Your task to perform on an android device: Search for seafood restaurants on Google Maps Image 0: 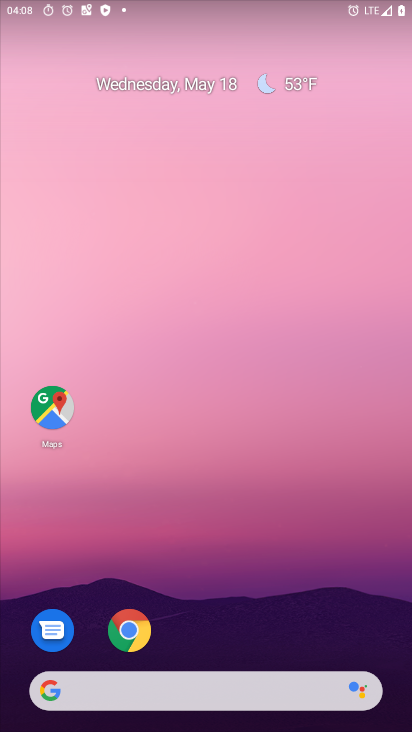
Step 0: drag from (226, 710) to (226, 133)
Your task to perform on an android device: Search for seafood restaurants on Google Maps Image 1: 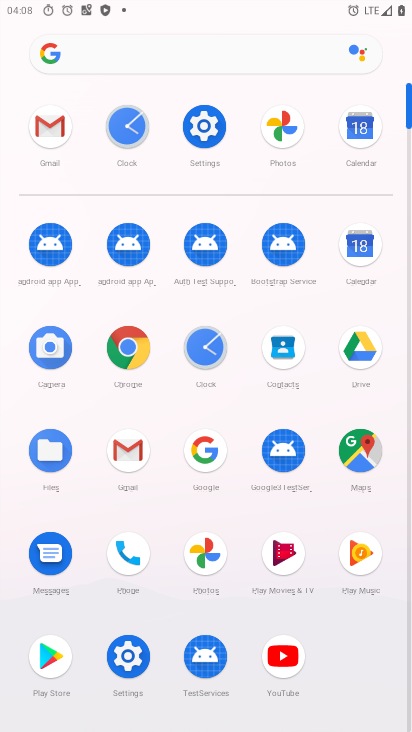
Step 1: click (364, 454)
Your task to perform on an android device: Search for seafood restaurants on Google Maps Image 2: 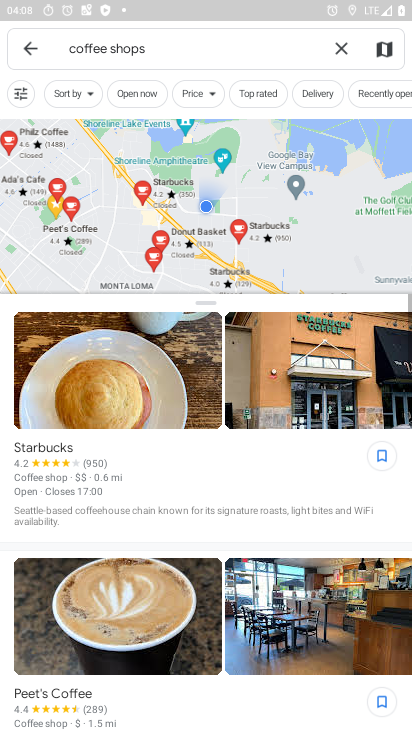
Step 2: click (154, 51)
Your task to perform on an android device: Search for seafood restaurants on Google Maps Image 3: 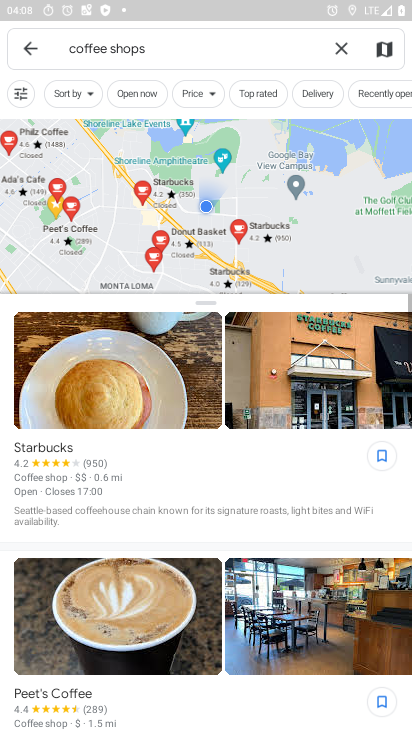
Step 3: click (154, 51)
Your task to perform on an android device: Search for seafood restaurants on Google Maps Image 4: 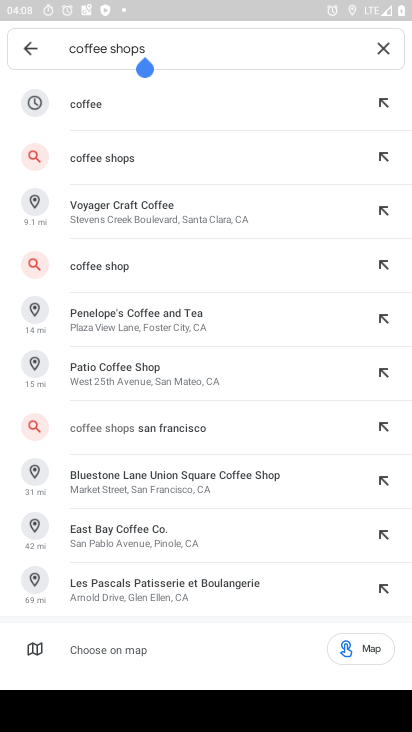
Step 4: click (380, 46)
Your task to perform on an android device: Search for seafood restaurants on Google Maps Image 5: 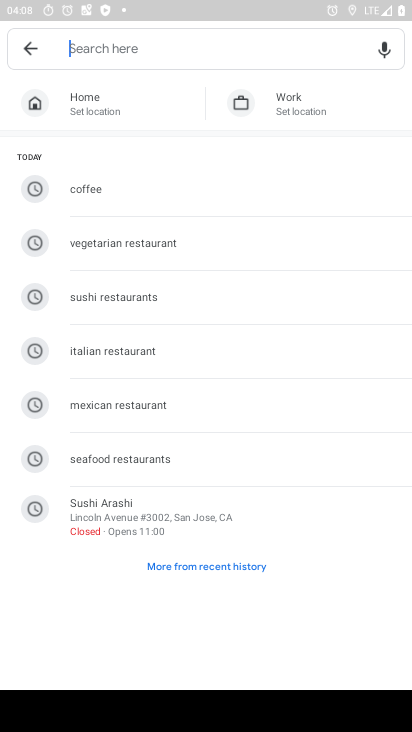
Step 5: click (127, 46)
Your task to perform on an android device: Search for seafood restaurants on Google Maps Image 6: 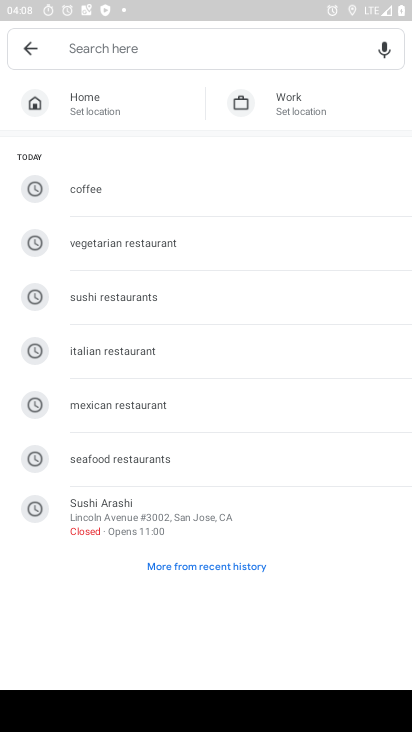
Step 6: type "seafood restaurants"
Your task to perform on an android device: Search for seafood restaurants on Google Maps Image 7: 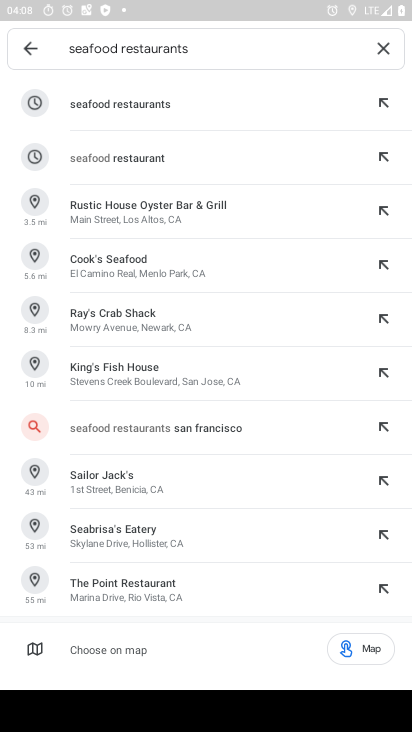
Step 7: click (128, 105)
Your task to perform on an android device: Search for seafood restaurants on Google Maps Image 8: 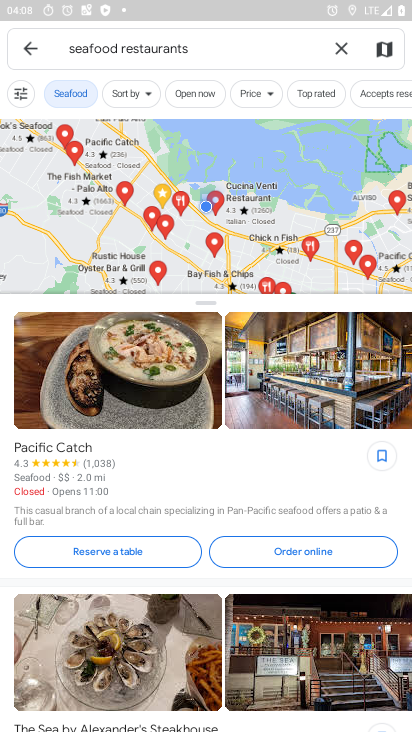
Step 8: task complete